Your task to perform on an android device: open app "Contacts" (install if not already installed) Image 0: 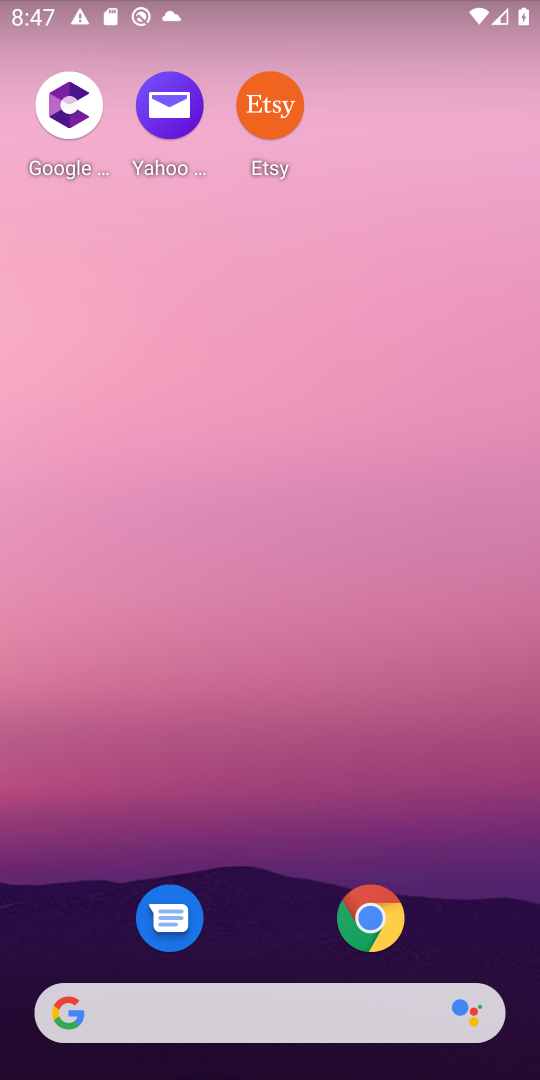
Step 0: drag from (205, 1052) to (215, 209)
Your task to perform on an android device: open app "Contacts" (install if not already installed) Image 1: 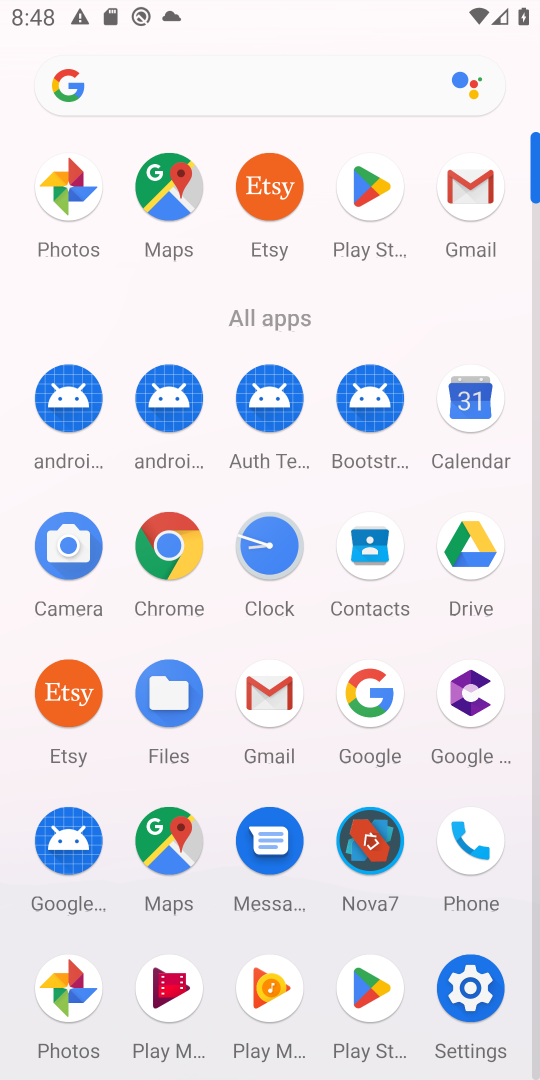
Step 1: click (371, 190)
Your task to perform on an android device: open app "Contacts" (install if not already installed) Image 2: 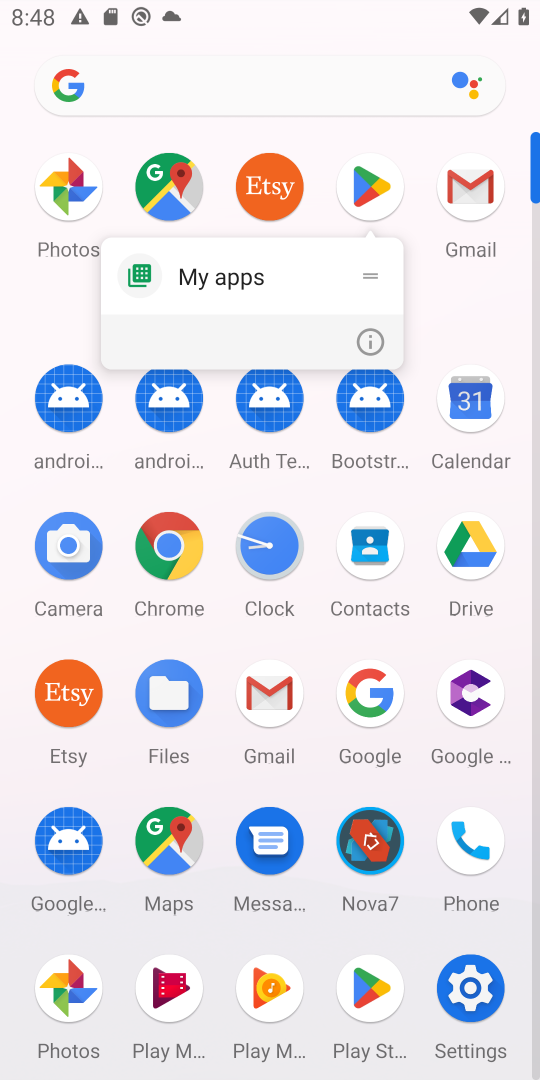
Step 2: click (371, 190)
Your task to perform on an android device: open app "Contacts" (install if not already installed) Image 3: 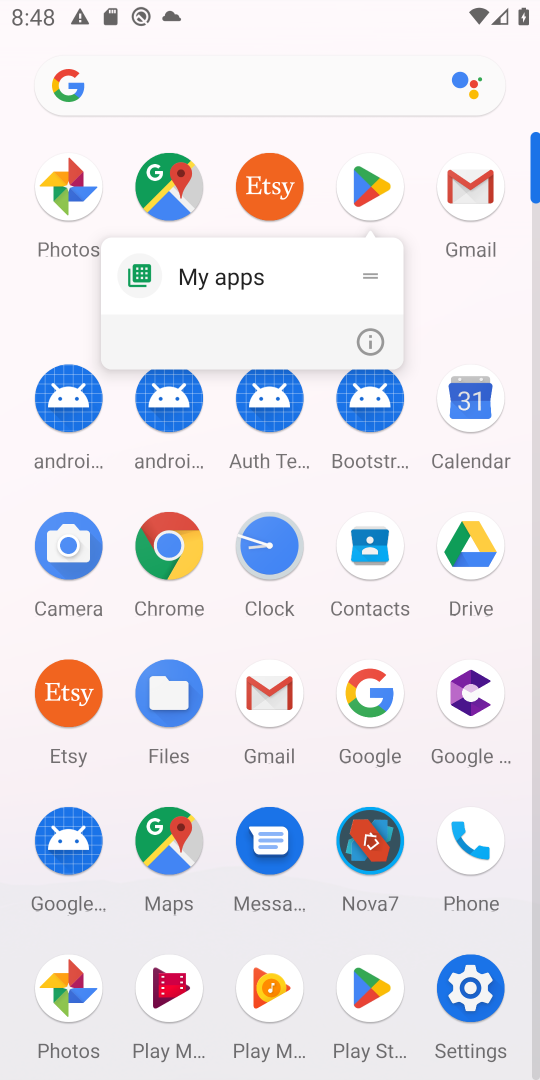
Step 3: click (371, 190)
Your task to perform on an android device: open app "Contacts" (install if not already installed) Image 4: 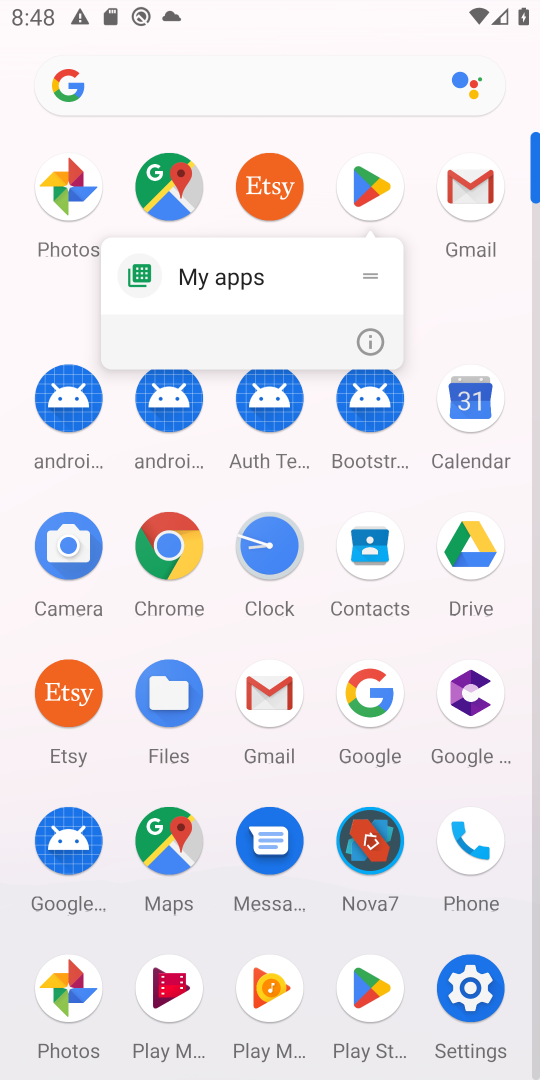
Step 4: click (371, 190)
Your task to perform on an android device: open app "Contacts" (install if not already installed) Image 5: 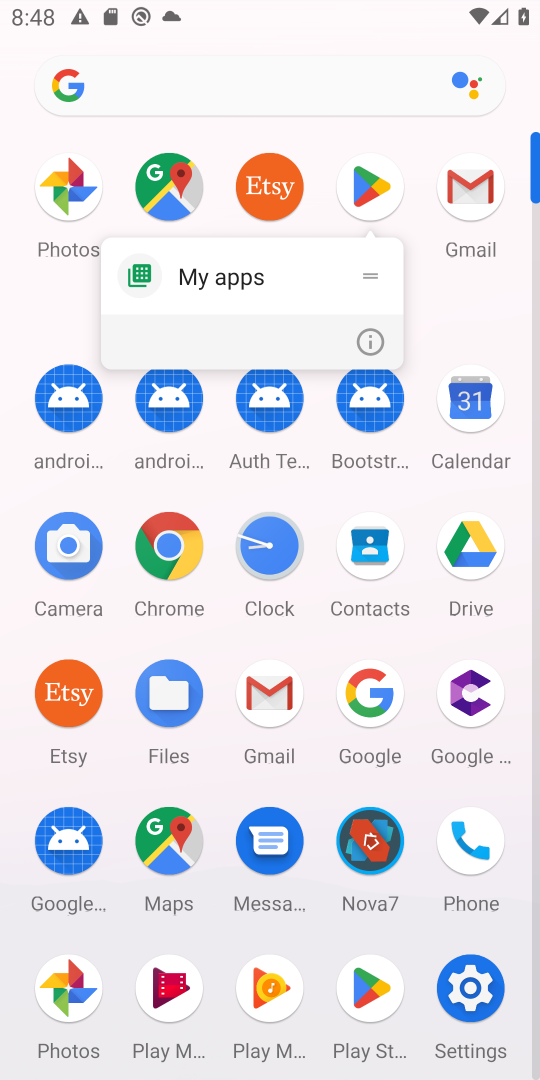
Step 5: click (383, 537)
Your task to perform on an android device: open app "Contacts" (install if not already installed) Image 6: 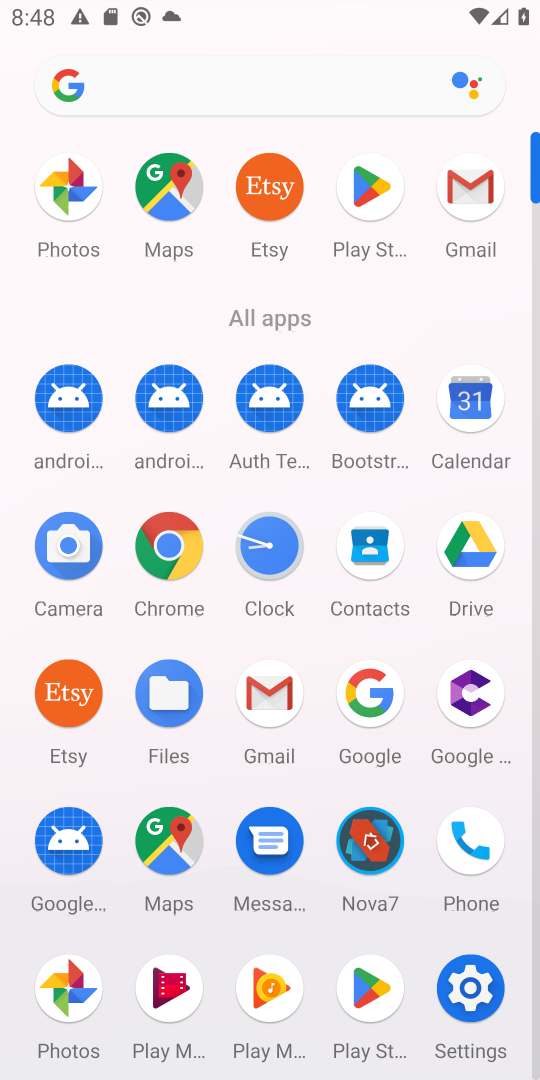
Step 6: click (383, 537)
Your task to perform on an android device: open app "Contacts" (install if not already installed) Image 7: 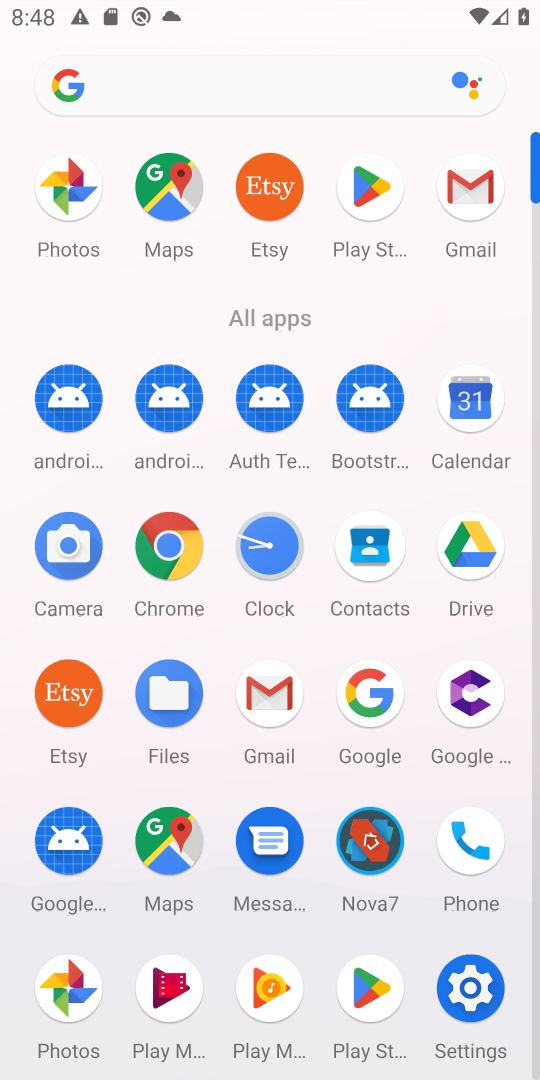
Step 7: click (383, 537)
Your task to perform on an android device: open app "Contacts" (install if not already installed) Image 8: 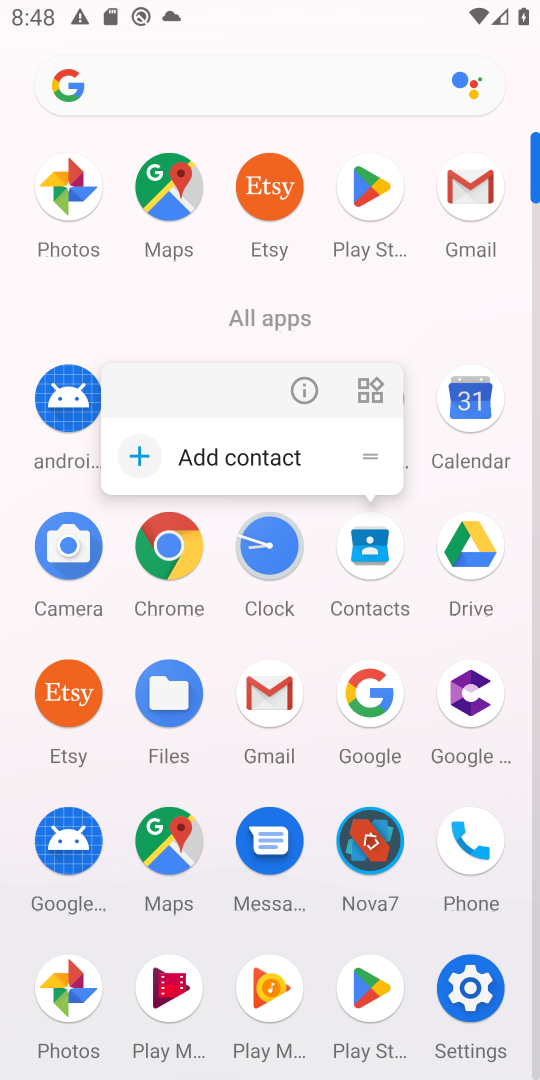
Step 8: click (362, 557)
Your task to perform on an android device: open app "Contacts" (install if not already installed) Image 9: 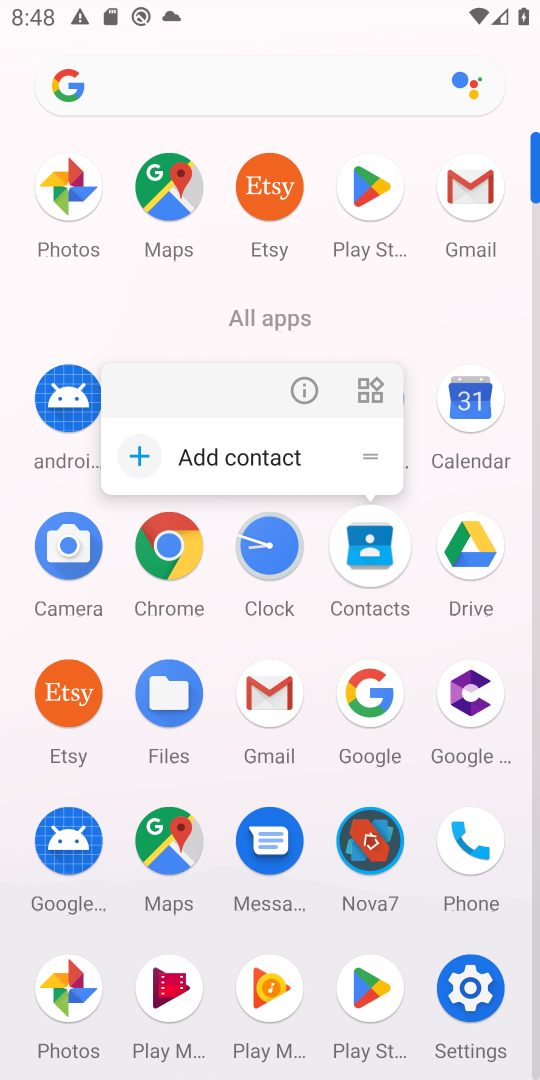
Step 9: click (362, 557)
Your task to perform on an android device: open app "Contacts" (install if not already installed) Image 10: 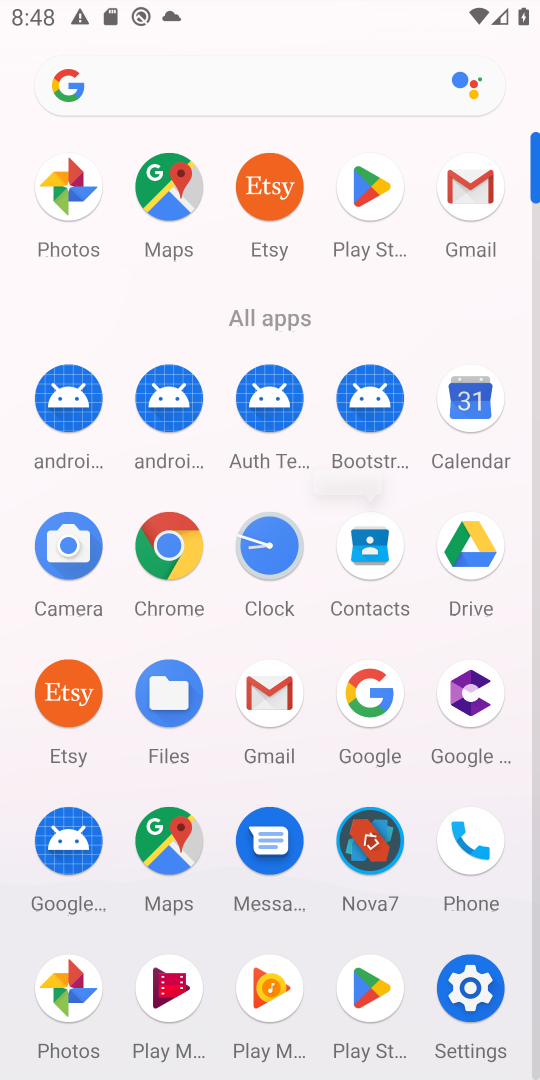
Step 10: click (362, 557)
Your task to perform on an android device: open app "Contacts" (install if not already installed) Image 11: 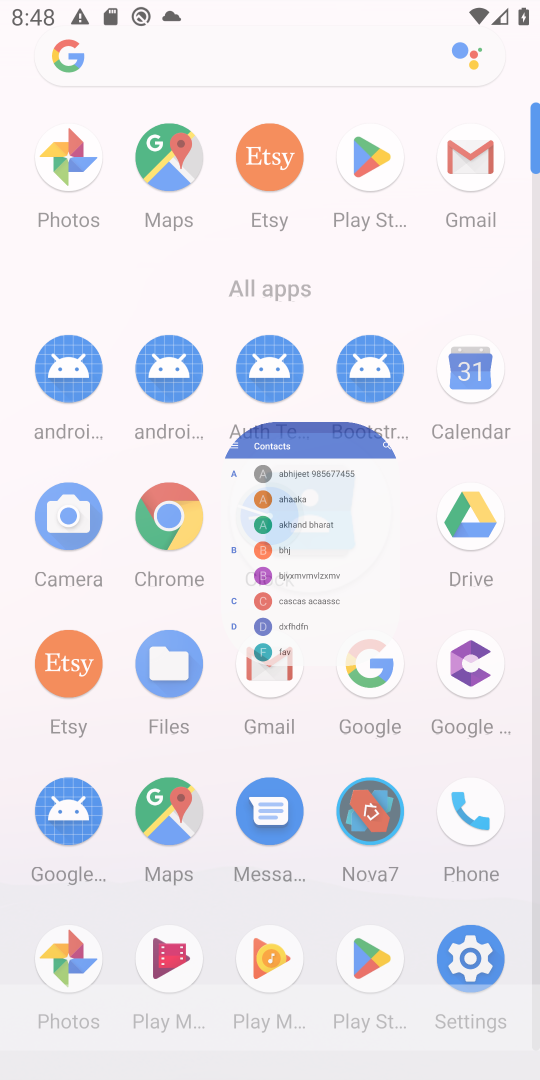
Step 11: click (362, 557)
Your task to perform on an android device: open app "Contacts" (install if not already installed) Image 12: 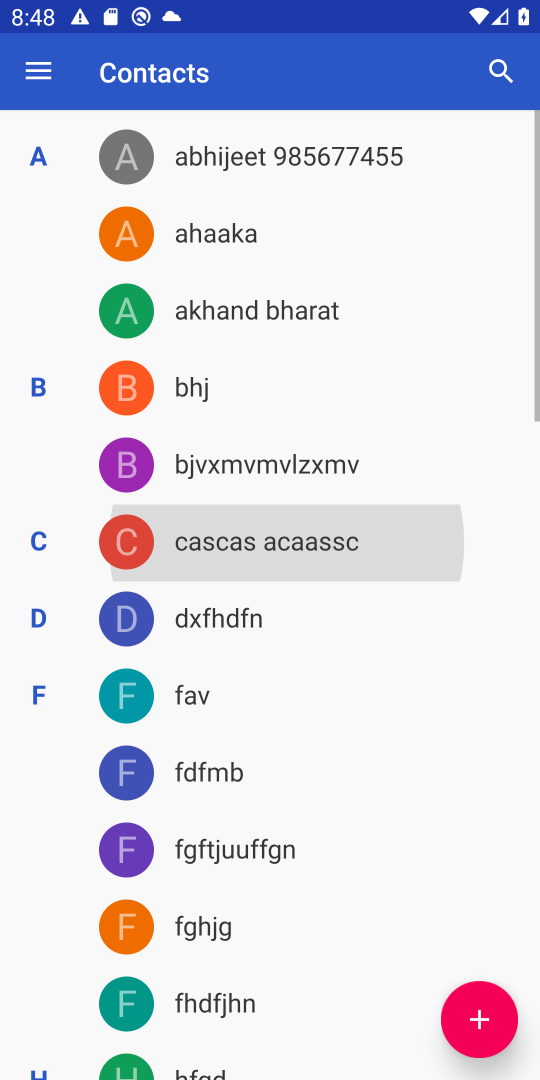
Step 12: click (362, 557)
Your task to perform on an android device: open app "Contacts" (install if not already installed) Image 13: 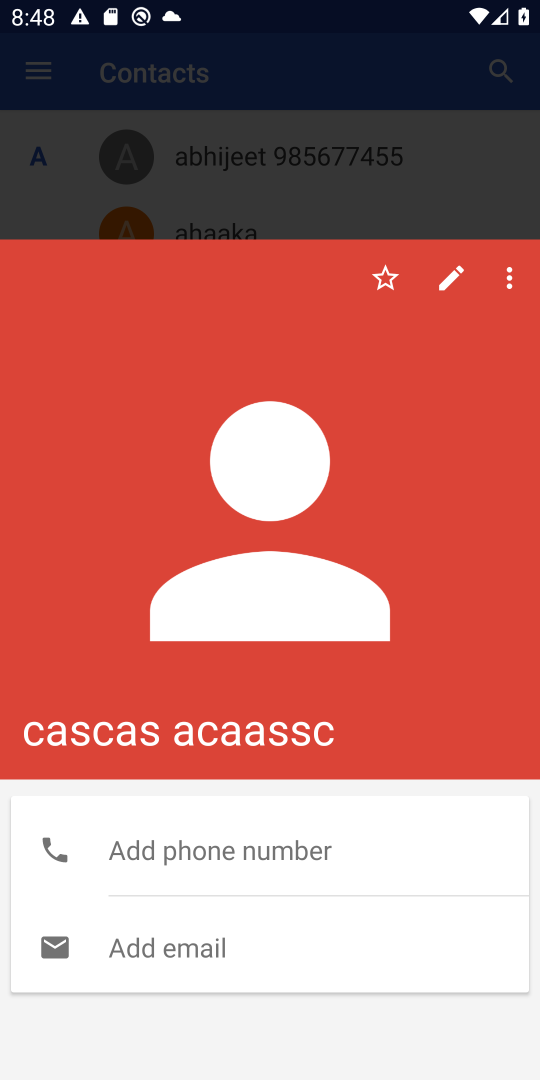
Step 13: click (72, 173)
Your task to perform on an android device: open app "Contacts" (install if not already installed) Image 14: 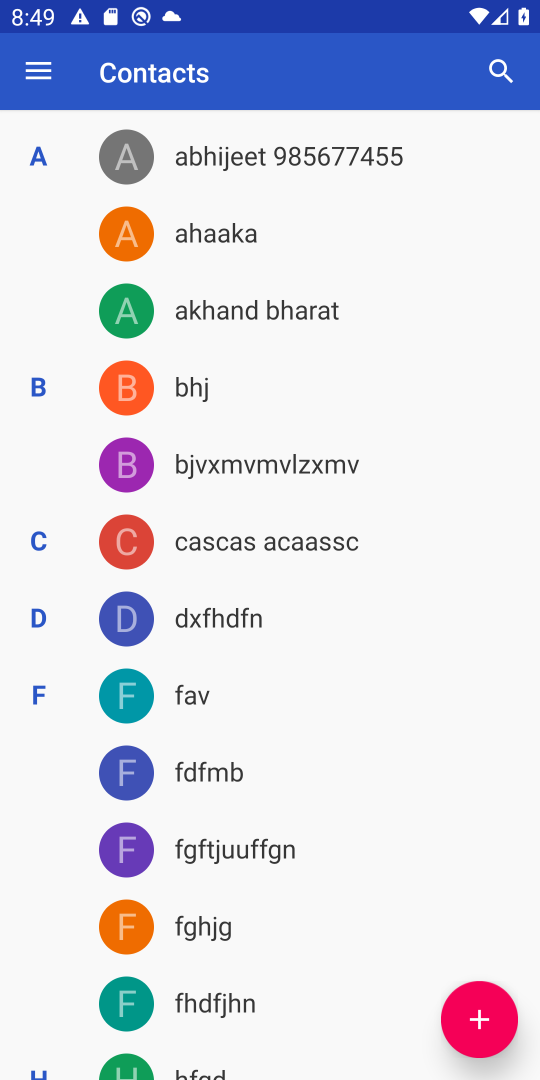
Step 14: task complete